Your task to perform on an android device: Go to calendar. Show me events next week Image 0: 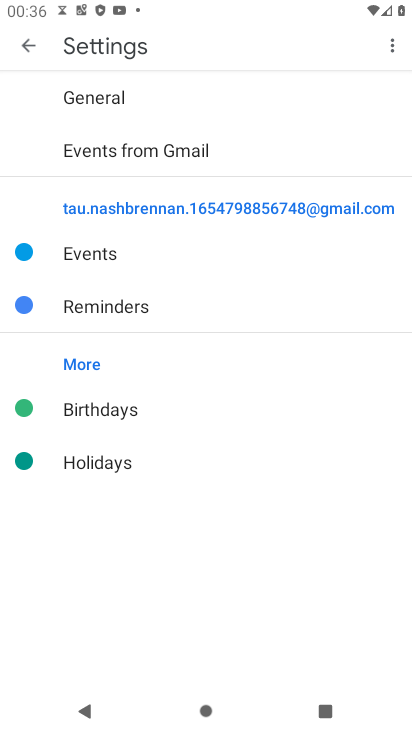
Step 0: press back button
Your task to perform on an android device: Go to calendar. Show me events next week Image 1: 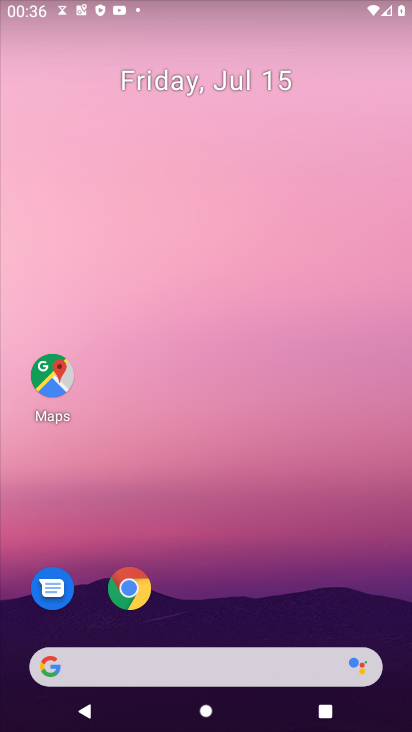
Step 1: drag from (212, 569) to (240, 39)
Your task to perform on an android device: Go to calendar. Show me events next week Image 2: 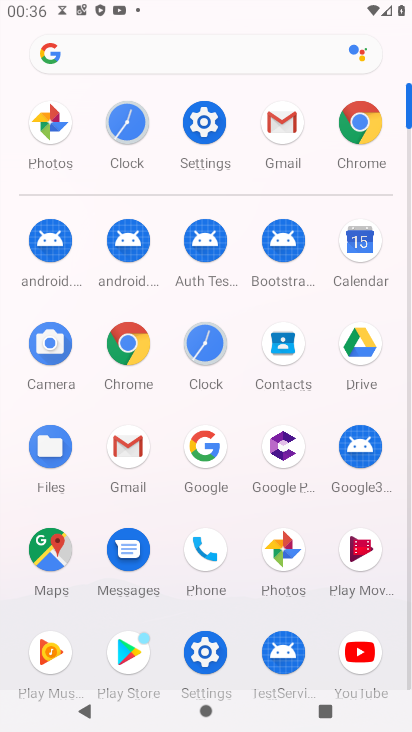
Step 2: click (363, 249)
Your task to perform on an android device: Go to calendar. Show me events next week Image 3: 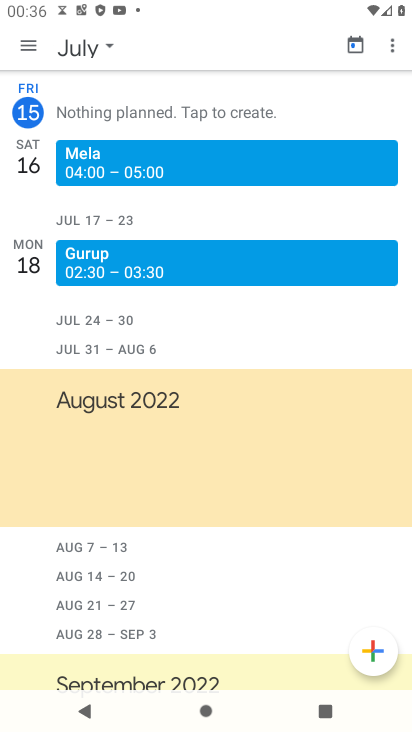
Step 3: click (96, 42)
Your task to perform on an android device: Go to calendar. Show me events next week Image 4: 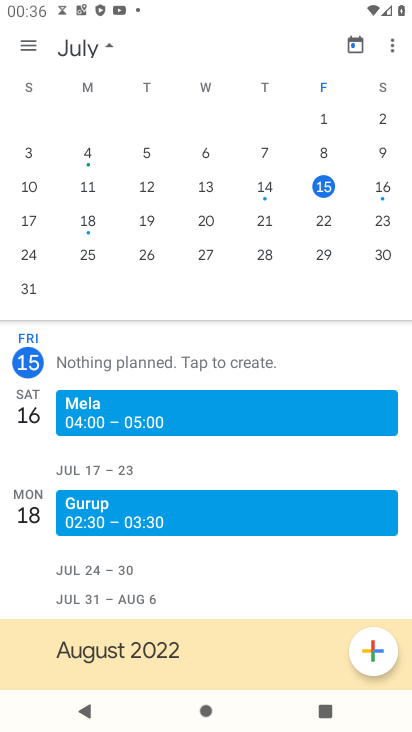
Step 4: click (88, 225)
Your task to perform on an android device: Go to calendar. Show me events next week Image 5: 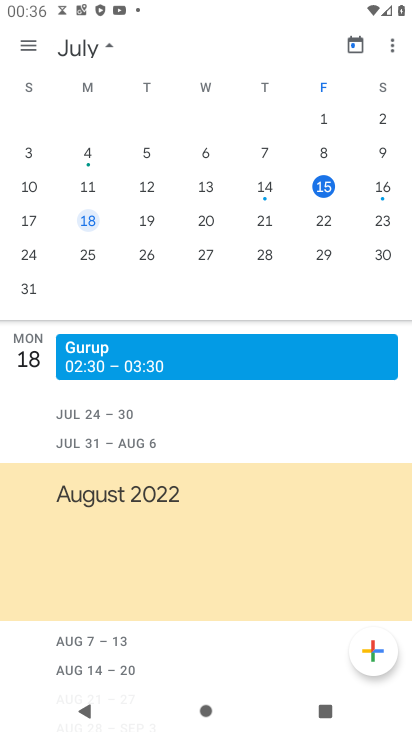
Step 5: task complete